Your task to perform on an android device: see tabs open on other devices in the chrome app Image 0: 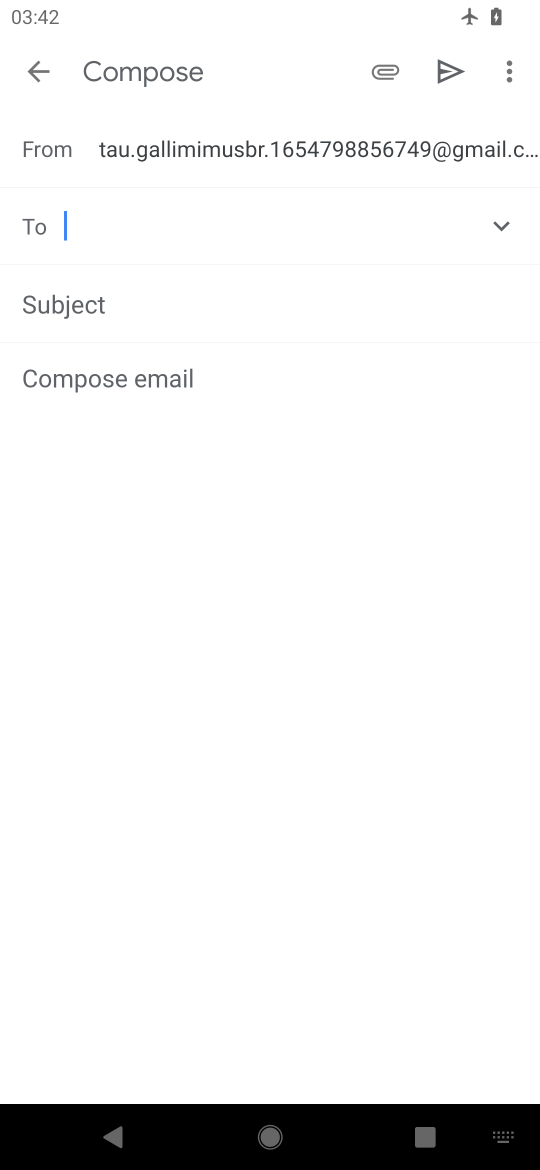
Step 0: press back button
Your task to perform on an android device: see tabs open on other devices in the chrome app Image 1: 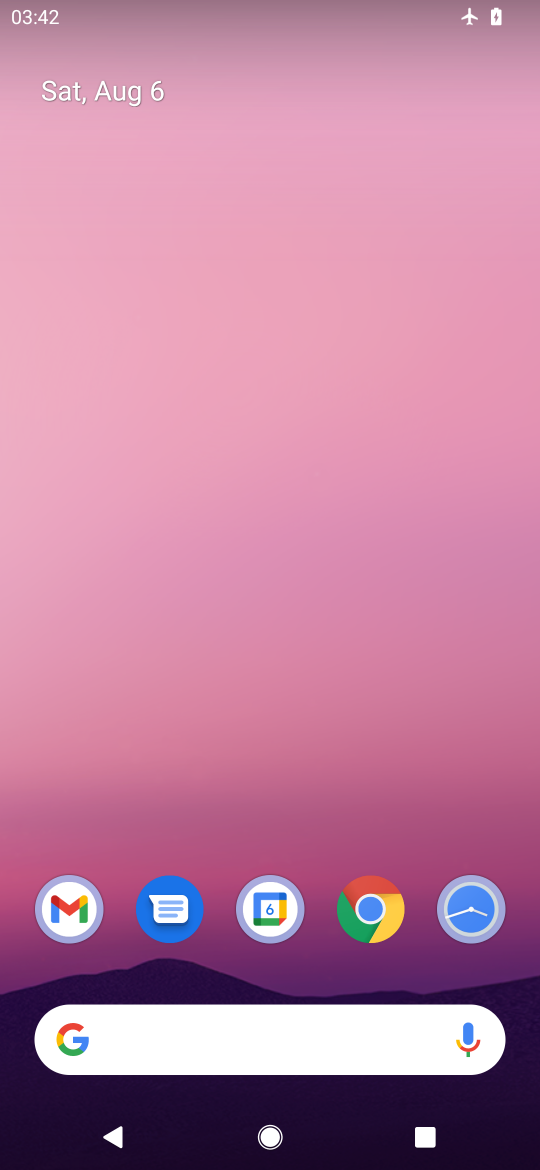
Step 1: click (361, 903)
Your task to perform on an android device: see tabs open on other devices in the chrome app Image 2: 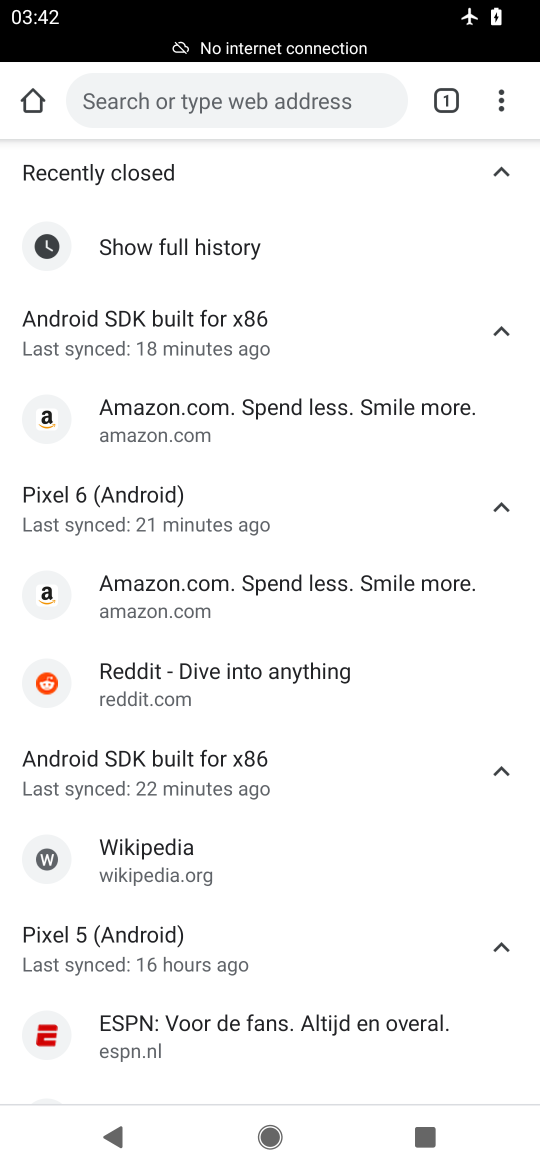
Step 2: task complete